Your task to perform on an android device: What is the news today? Image 0: 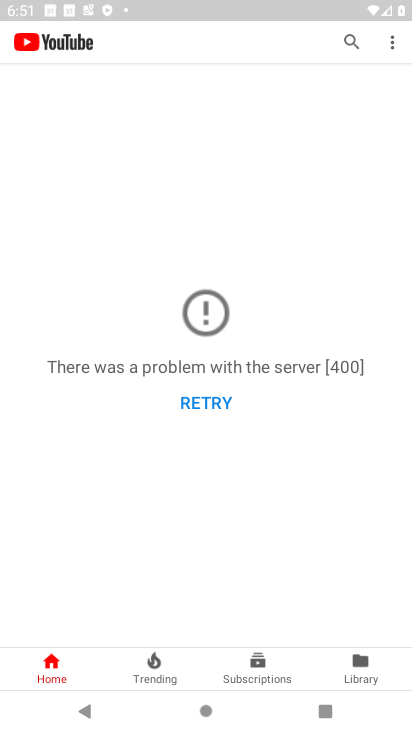
Step 0: press home button
Your task to perform on an android device: What is the news today? Image 1: 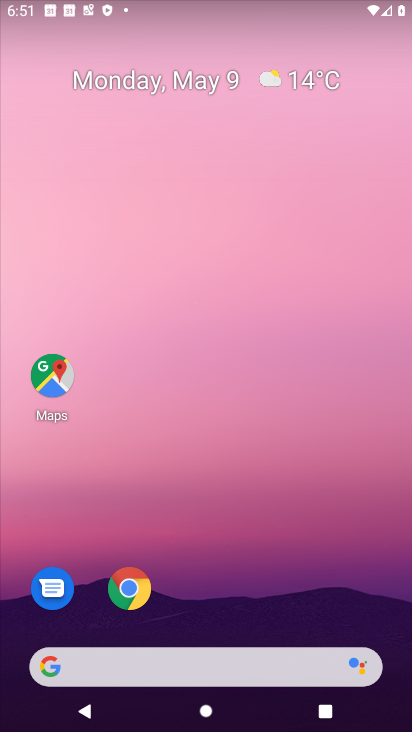
Step 1: click (125, 594)
Your task to perform on an android device: What is the news today? Image 2: 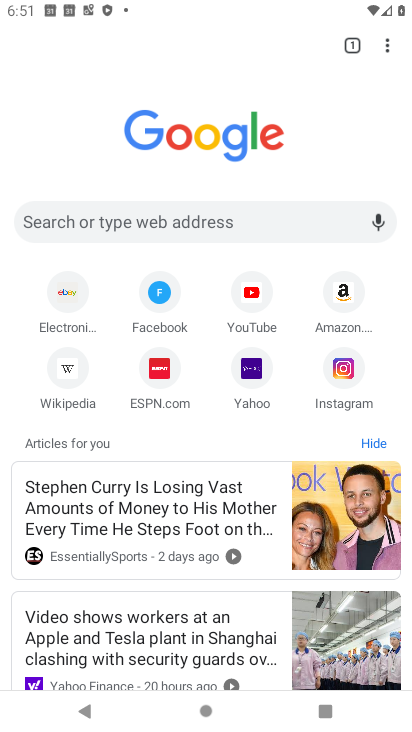
Step 2: click (186, 643)
Your task to perform on an android device: What is the news today? Image 3: 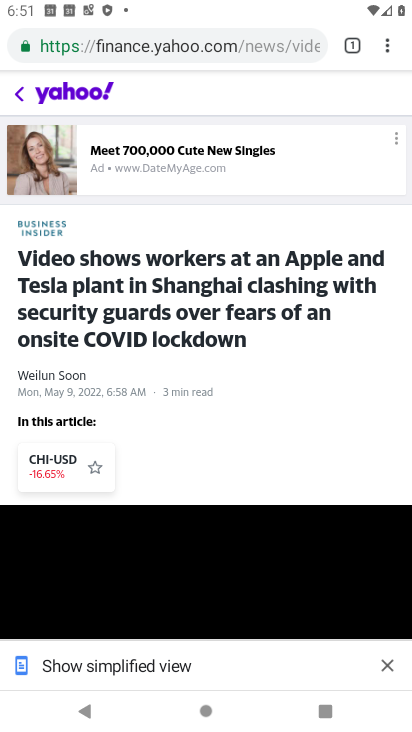
Step 3: task complete